Your task to perform on an android device: Open Google Chrome Image 0: 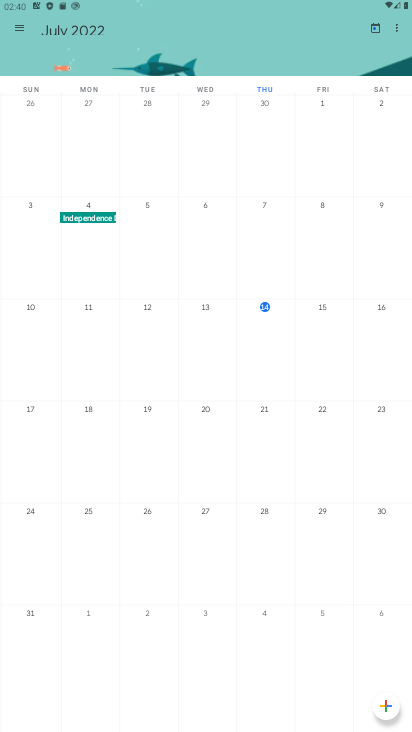
Step 0: press home button
Your task to perform on an android device: Open Google Chrome Image 1: 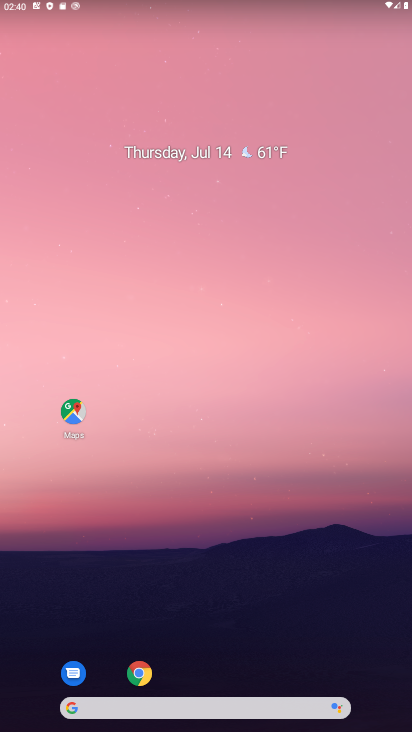
Step 1: click (144, 683)
Your task to perform on an android device: Open Google Chrome Image 2: 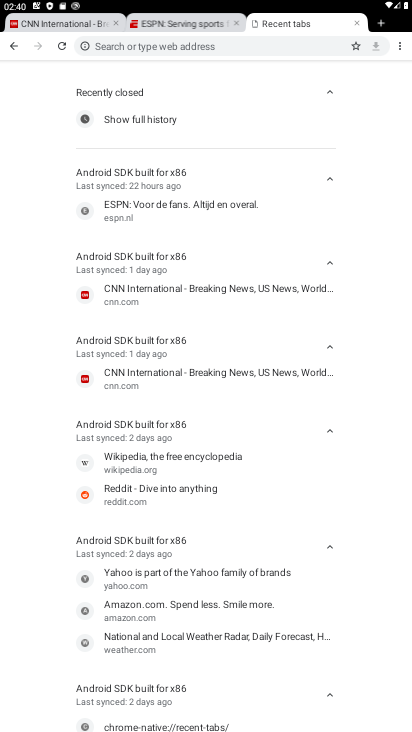
Step 2: task complete